Your task to perform on an android device: Toggle the flashlight Image 0: 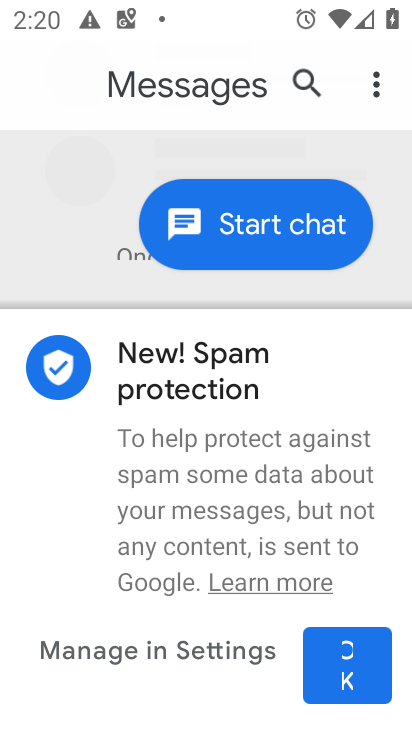
Step 0: press home button
Your task to perform on an android device: Toggle the flashlight Image 1: 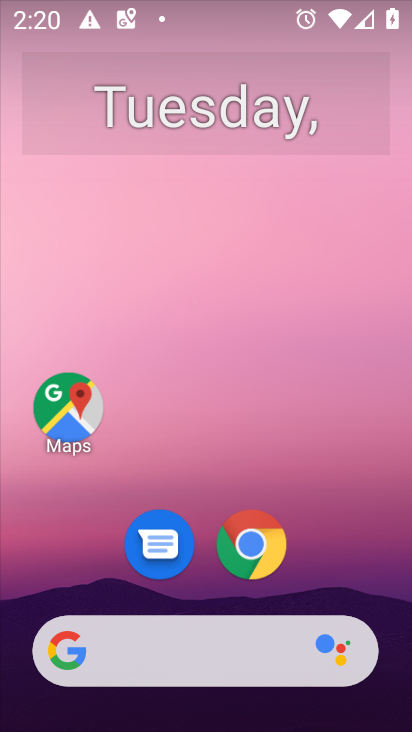
Step 1: drag from (344, 603) to (239, 58)
Your task to perform on an android device: Toggle the flashlight Image 2: 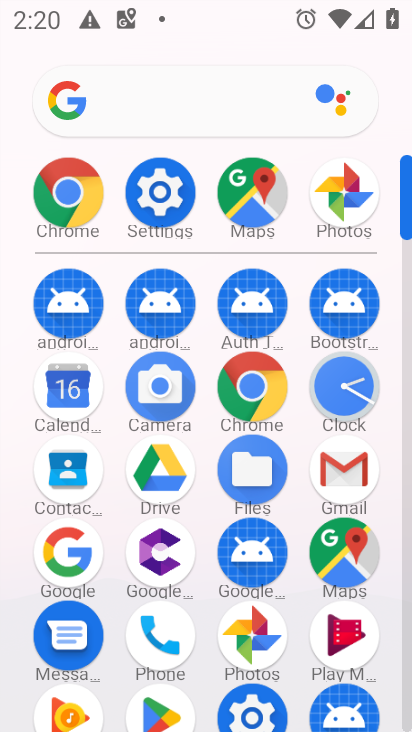
Step 2: click (250, 712)
Your task to perform on an android device: Toggle the flashlight Image 3: 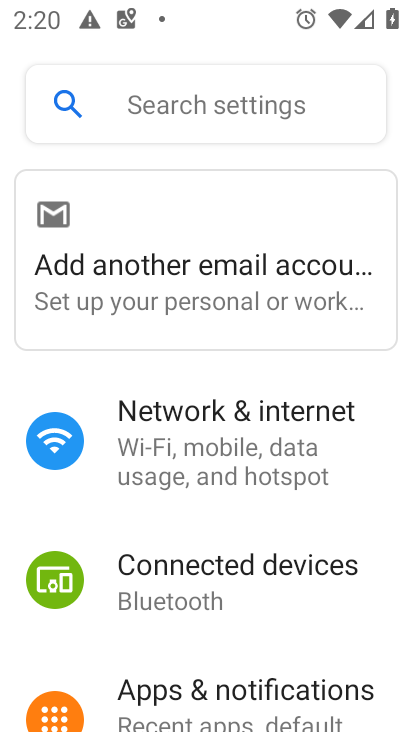
Step 3: drag from (271, 647) to (292, 215)
Your task to perform on an android device: Toggle the flashlight Image 4: 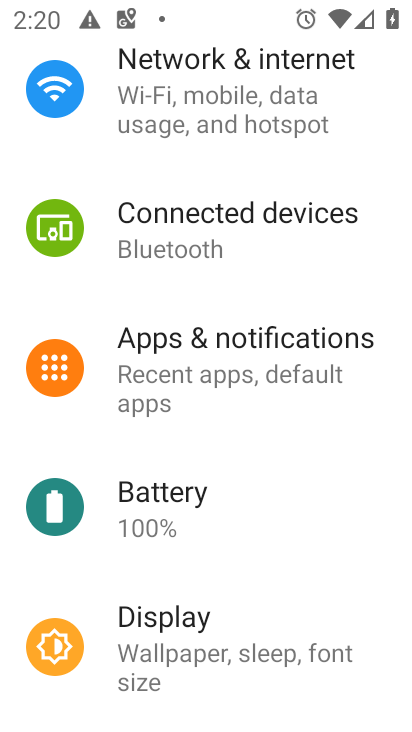
Step 4: click (151, 632)
Your task to perform on an android device: Toggle the flashlight Image 5: 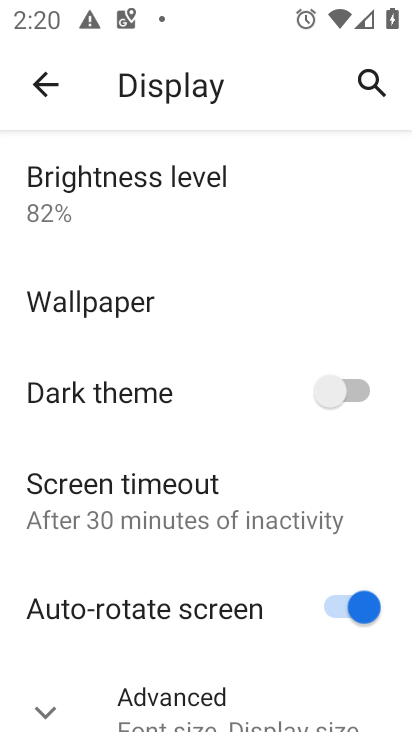
Step 5: task complete